Your task to perform on an android device: check google app version Image 0: 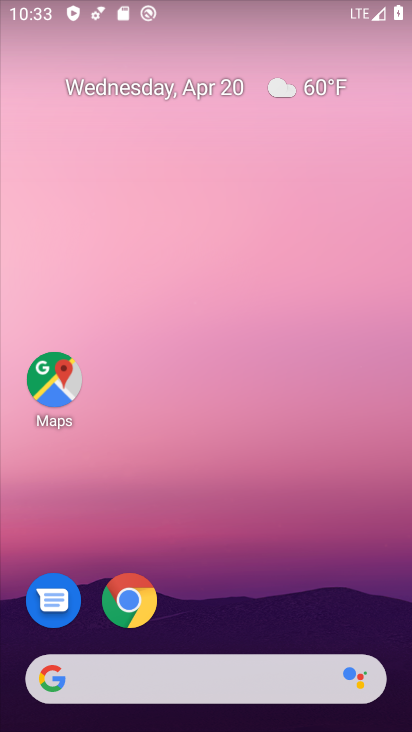
Step 0: drag from (284, 569) to (286, 75)
Your task to perform on an android device: check google app version Image 1: 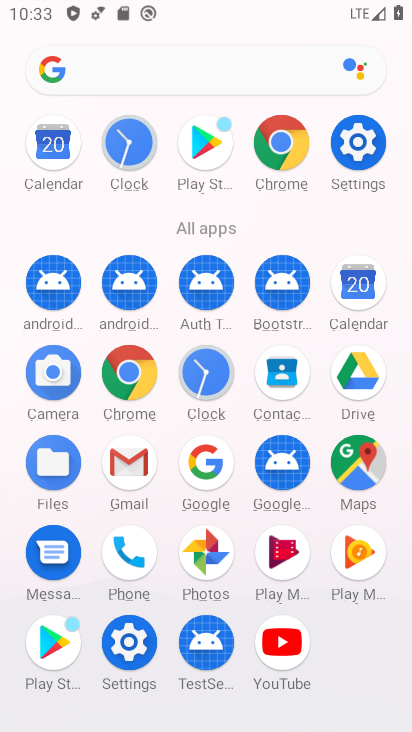
Step 1: click (205, 468)
Your task to perform on an android device: check google app version Image 2: 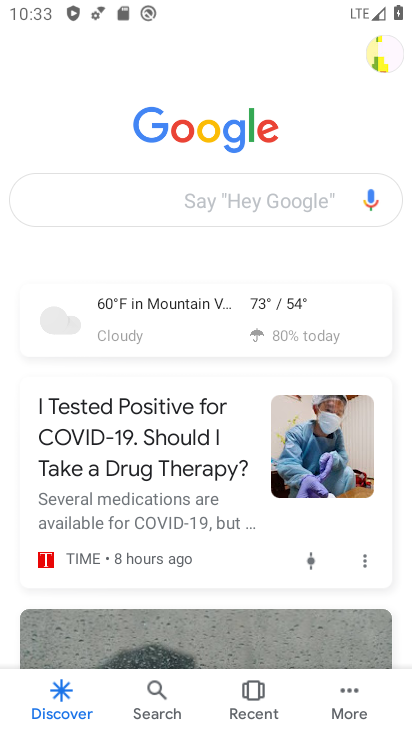
Step 2: press home button
Your task to perform on an android device: check google app version Image 3: 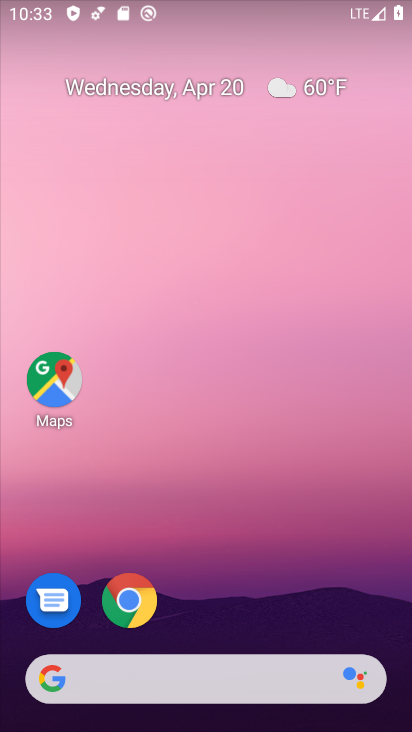
Step 3: drag from (209, 584) to (258, 131)
Your task to perform on an android device: check google app version Image 4: 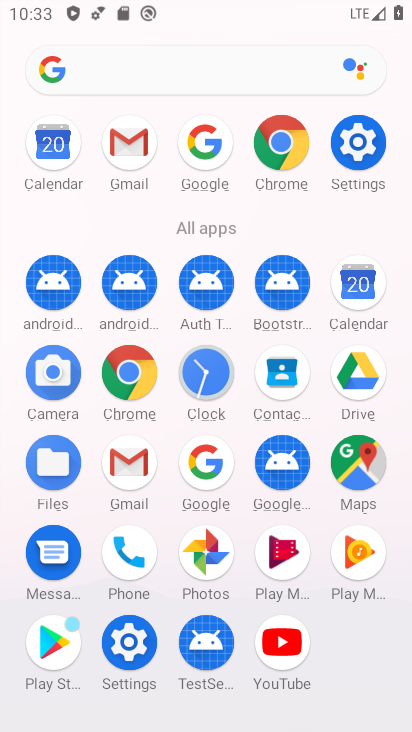
Step 4: click (208, 470)
Your task to perform on an android device: check google app version Image 5: 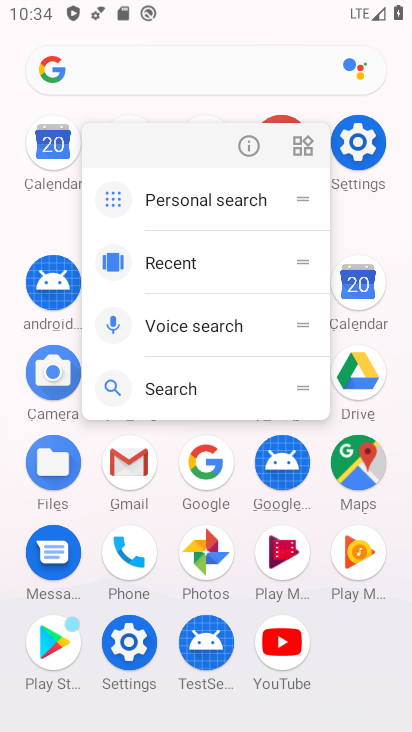
Step 5: click (246, 156)
Your task to perform on an android device: check google app version Image 6: 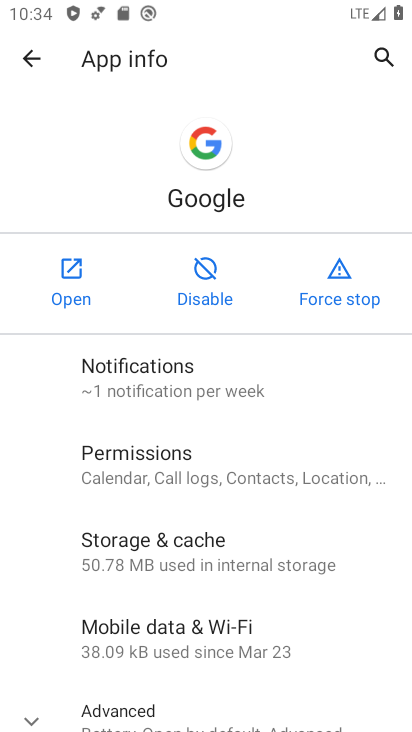
Step 6: drag from (272, 539) to (319, 129)
Your task to perform on an android device: check google app version Image 7: 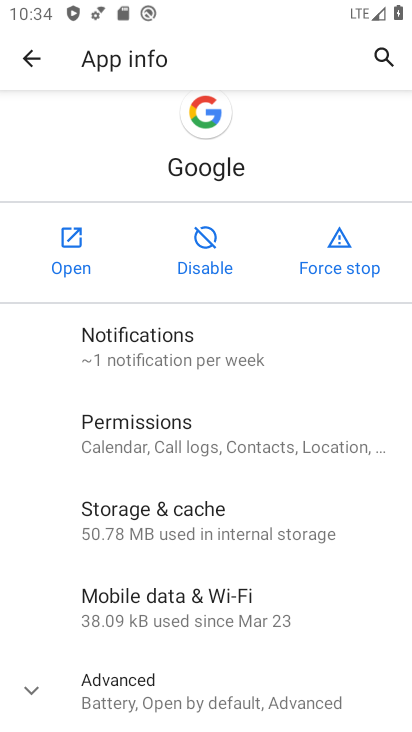
Step 7: click (142, 676)
Your task to perform on an android device: check google app version Image 8: 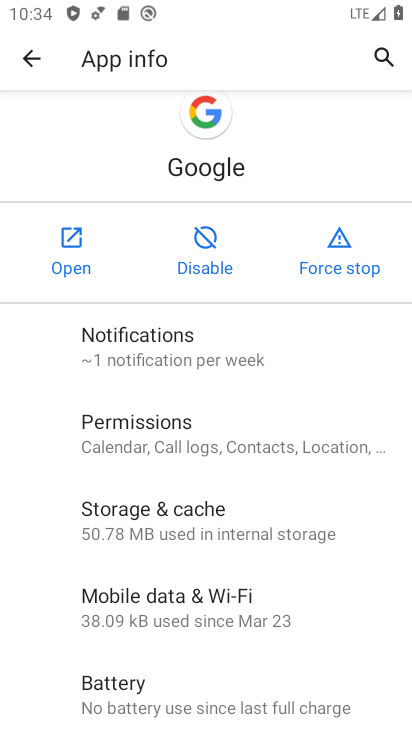
Step 8: drag from (261, 601) to (323, 196)
Your task to perform on an android device: check google app version Image 9: 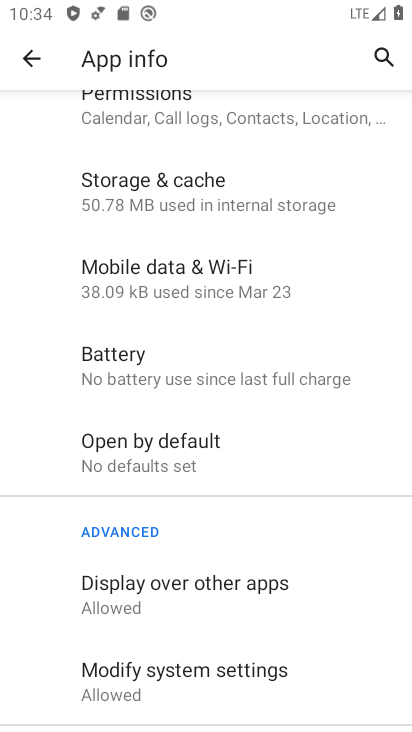
Step 9: drag from (174, 426) to (248, 111)
Your task to perform on an android device: check google app version Image 10: 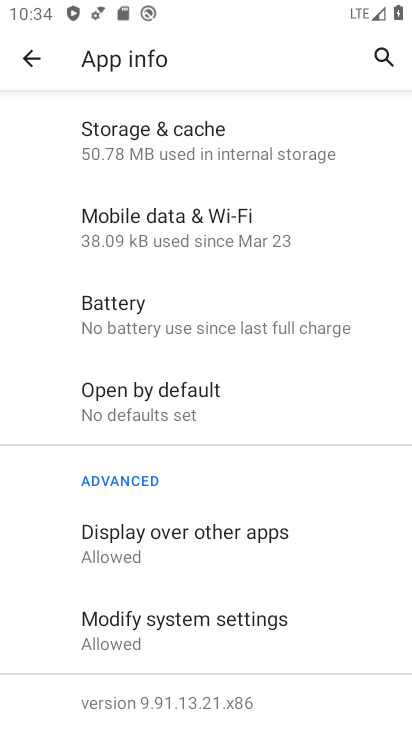
Step 10: click (227, 712)
Your task to perform on an android device: check google app version Image 11: 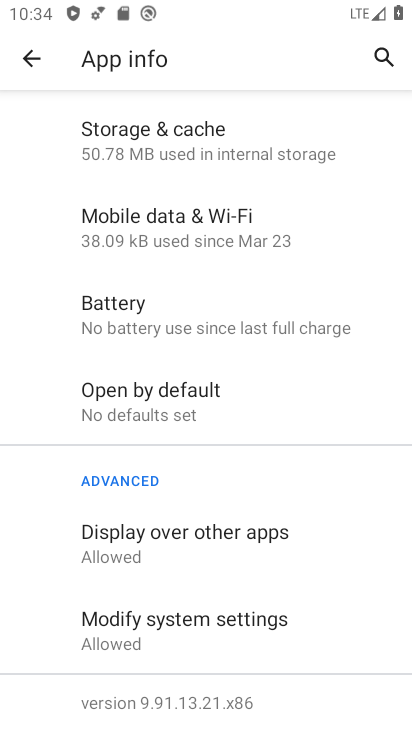
Step 11: click (222, 706)
Your task to perform on an android device: check google app version Image 12: 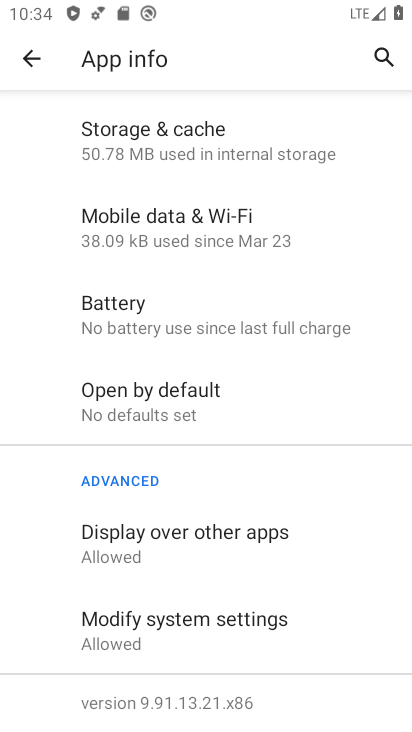
Step 12: task complete